Your task to perform on an android device: Go to Android settings Image 0: 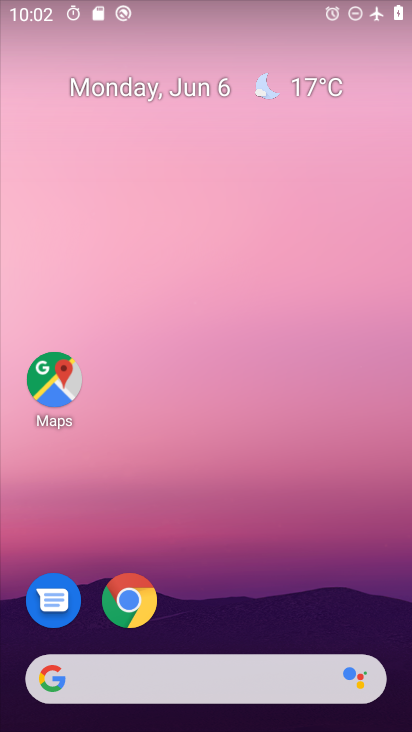
Step 0: drag from (315, 502) to (288, 23)
Your task to perform on an android device: Go to Android settings Image 1: 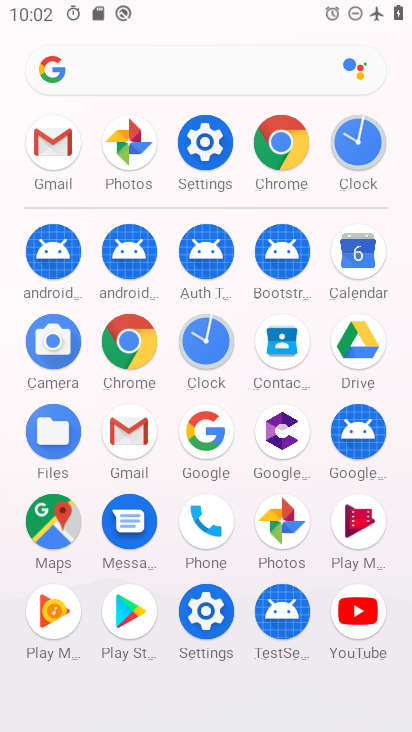
Step 1: click (202, 161)
Your task to perform on an android device: Go to Android settings Image 2: 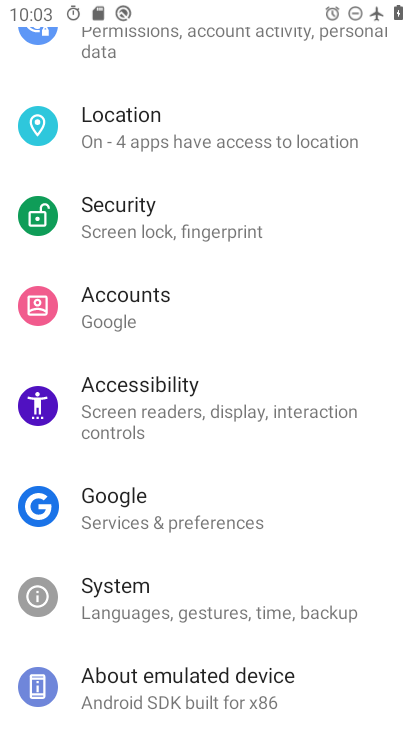
Step 2: click (252, 675)
Your task to perform on an android device: Go to Android settings Image 3: 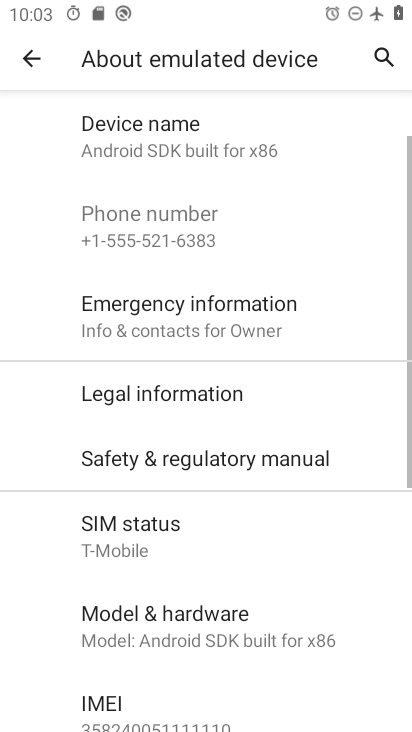
Step 3: drag from (181, 596) to (218, 59)
Your task to perform on an android device: Go to Android settings Image 4: 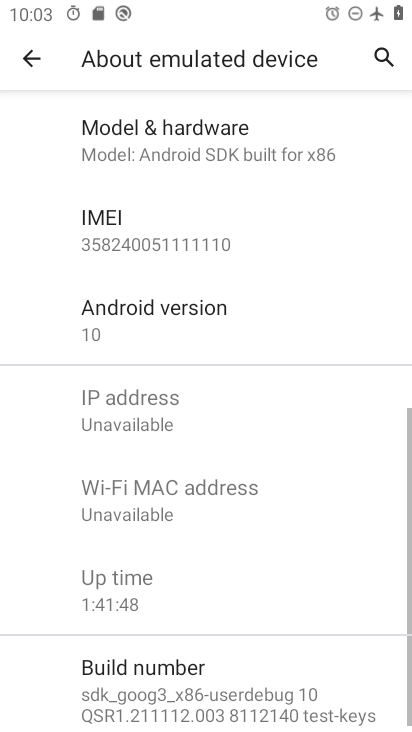
Step 4: click (206, 324)
Your task to perform on an android device: Go to Android settings Image 5: 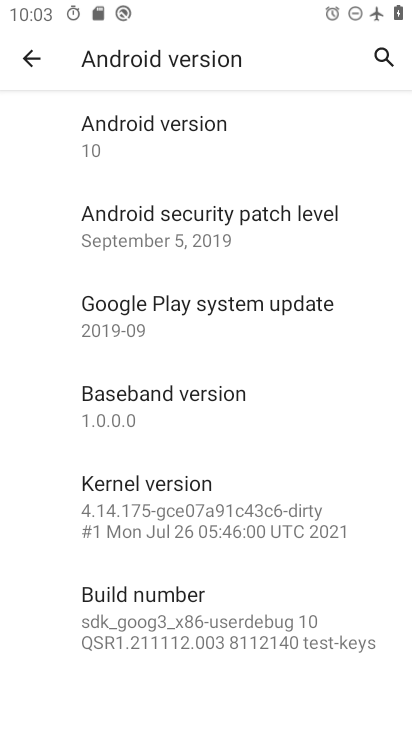
Step 5: click (265, 126)
Your task to perform on an android device: Go to Android settings Image 6: 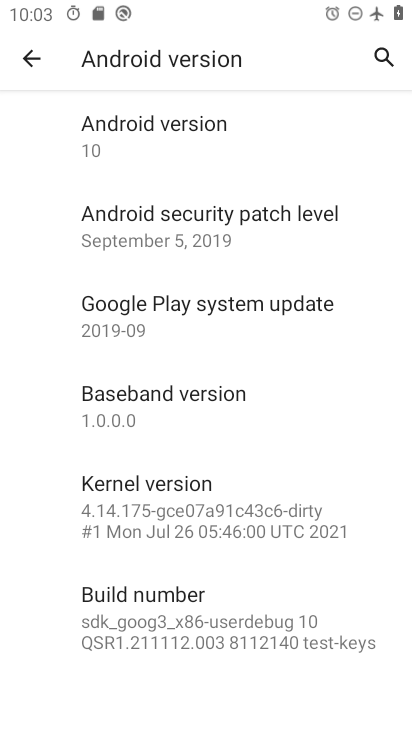
Step 6: task complete